Your task to perform on an android device: Show me popular videos on Youtube Image 0: 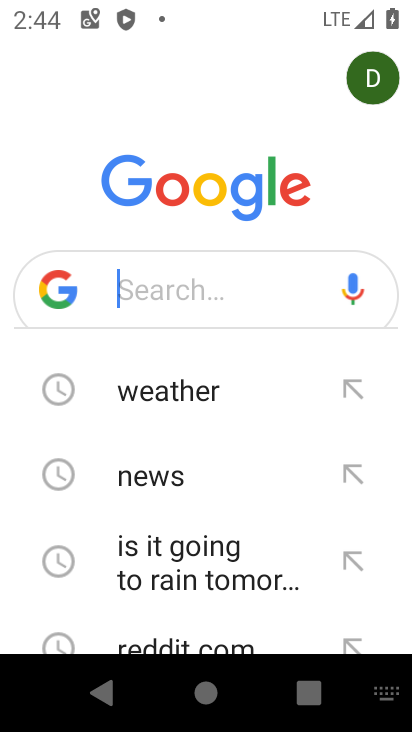
Step 0: press home button
Your task to perform on an android device: Show me popular videos on Youtube Image 1: 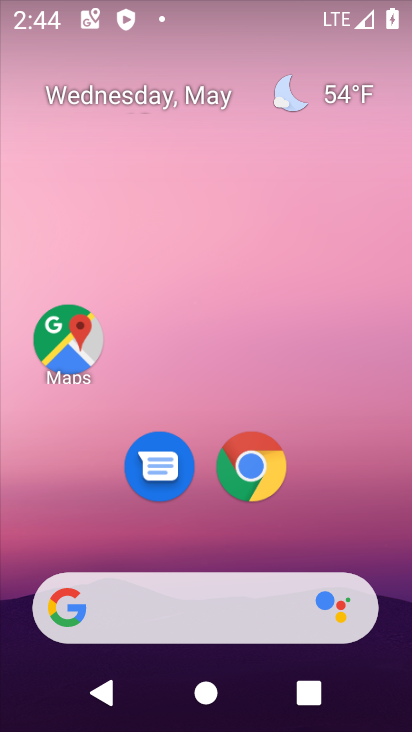
Step 1: drag from (366, 520) to (291, 102)
Your task to perform on an android device: Show me popular videos on Youtube Image 2: 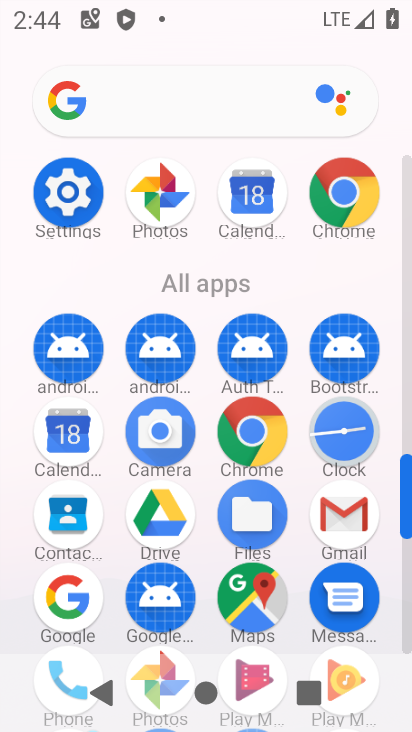
Step 2: click (406, 651)
Your task to perform on an android device: Show me popular videos on Youtube Image 3: 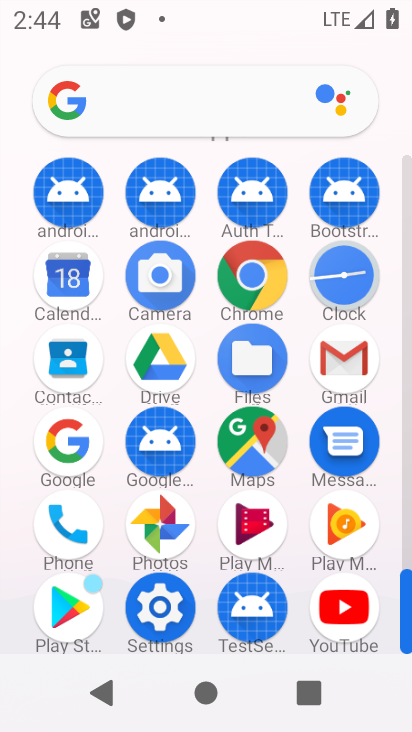
Step 3: click (348, 605)
Your task to perform on an android device: Show me popular videos on Youtube Image 4: 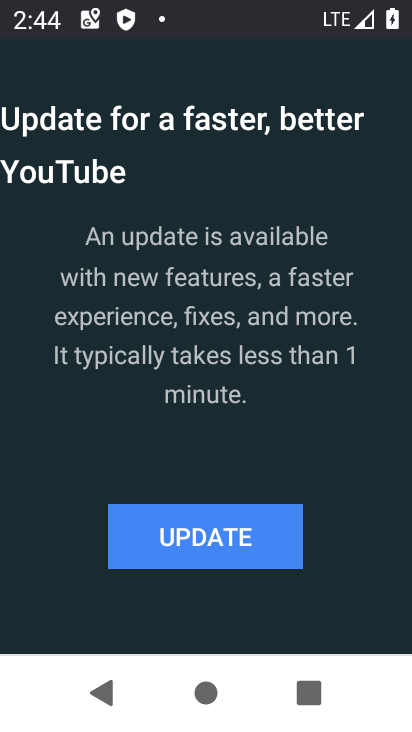
Step 4: click (253, 541)
Your task to perform on an android device: Show me popular videos on Youtube Image 5: 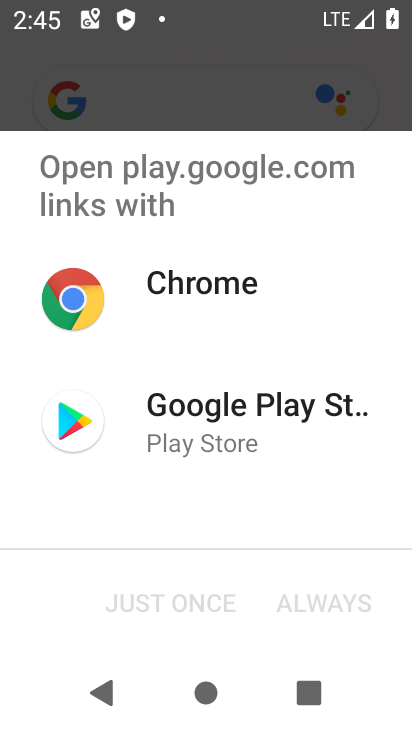
Step 5: click (258, 439)
Your task to perform on an android device: Show me popular videos on Youtube Image 6: 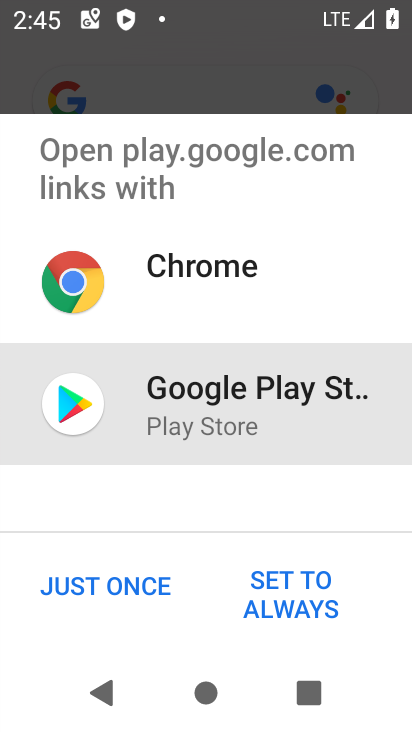
Step 6: click (159, 578)
Your task to perform on an android device: Show me popular videos on Youtube Image 7: 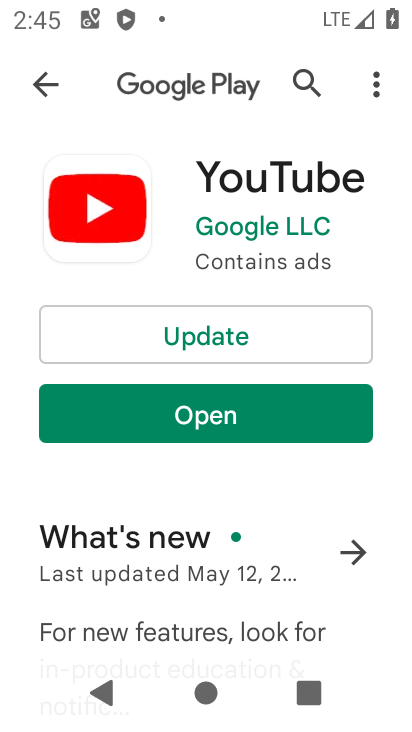
Step 7: click (140, 330)
Your task to perform on an android device: Show me popular videos on Youtube Image 8: 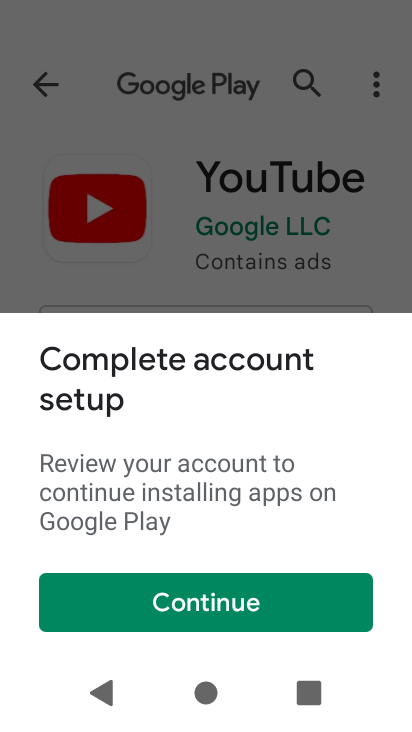
Step 8: click (239, 588)
Your task to perform on an android device: Show me popular videos on Youtube Image 9: 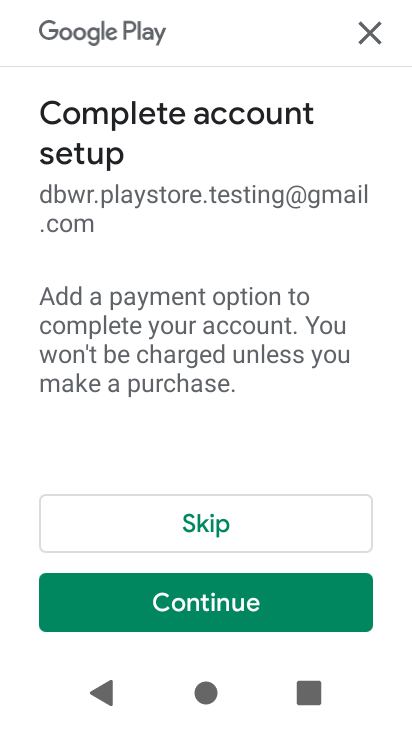
Step 9: click (251, 531)
Your task to perform on an android device: Show me popular videos on Youtube Image 10: 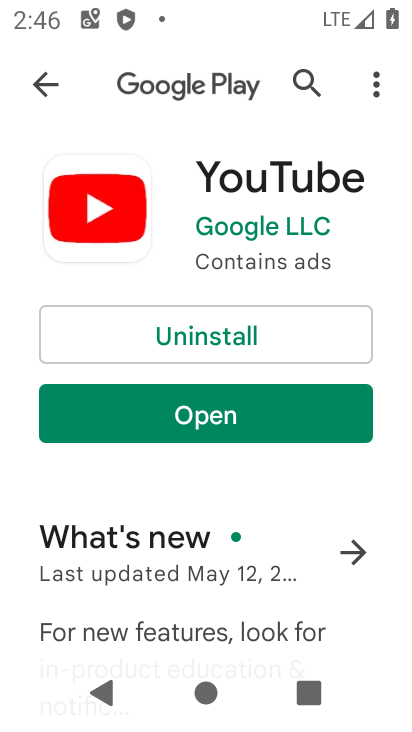
Step 10: click (267, 417)
Your task to perform on an android device: Show me popular videos on Youtube Image 11: 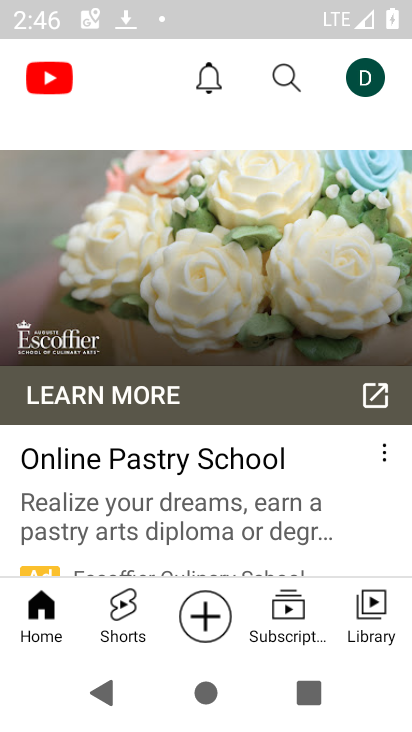
Step 11: task complete